Your task to perform on an android device: Open Wikipedia Image 0: 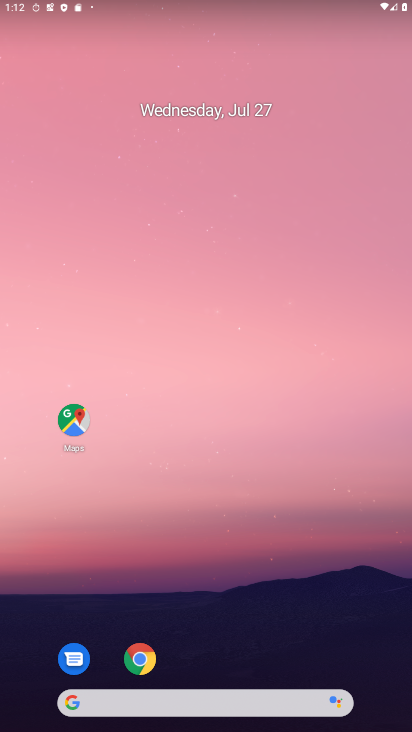
Step 0: drag from (316, 581) to (348, 7)
Your task to perform on an android device: Open Wikipedia Image 1: 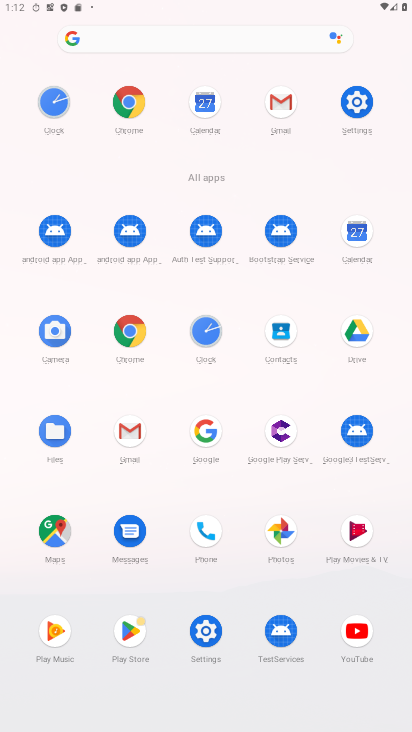
Step 1: click (137, 308)
Your task to perform on an android device: Open Wikipedia Image 2: 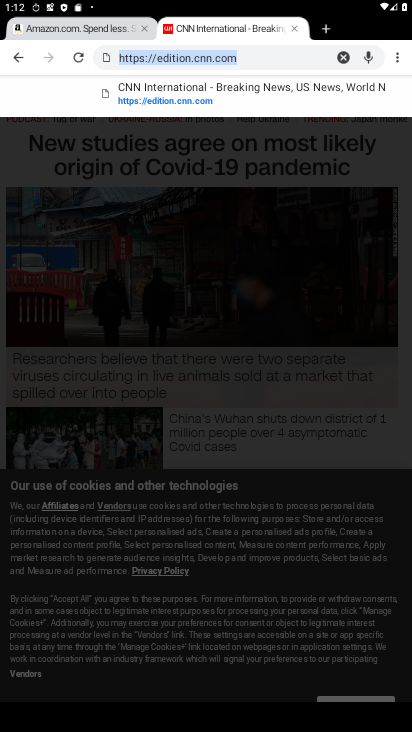
Step 2: type "Wikipedia"
Your task to perform on an android device: Open Wikipedia Image 3: 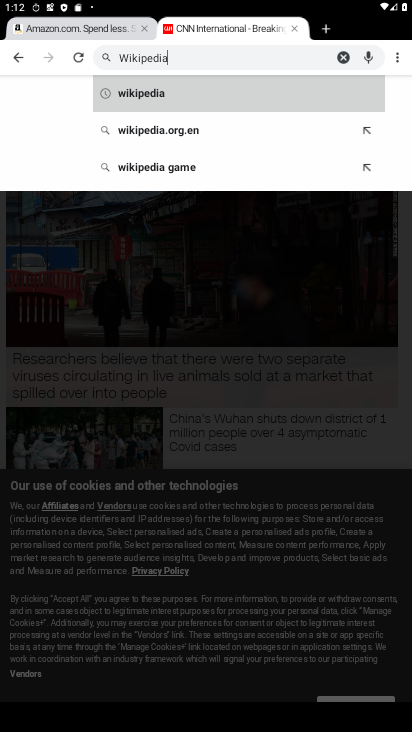
Step 3: type ""
Your task to perform on an android device: Open Wikipedia Image 4: 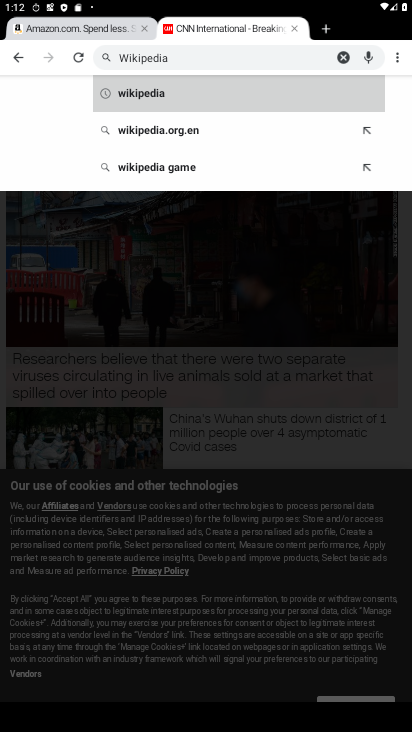
Step 4: click (207, 98)
Your task to perform on an android device: Open Wikipedia Image 5: 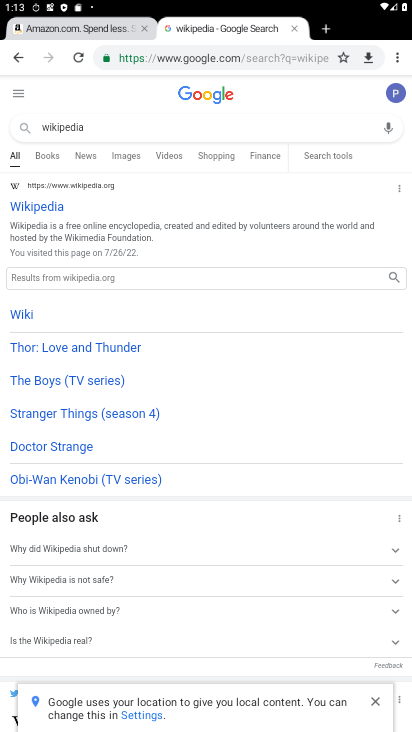
Step 5: click (47, 203)
Your task to perform on an android device: Open Wikipedia Image 6: 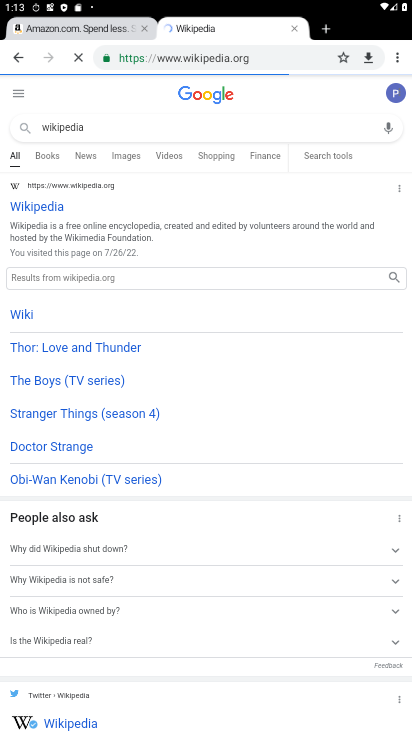
Step 6: task complete